Your task to perform on an android device: Go to settings Image 0: 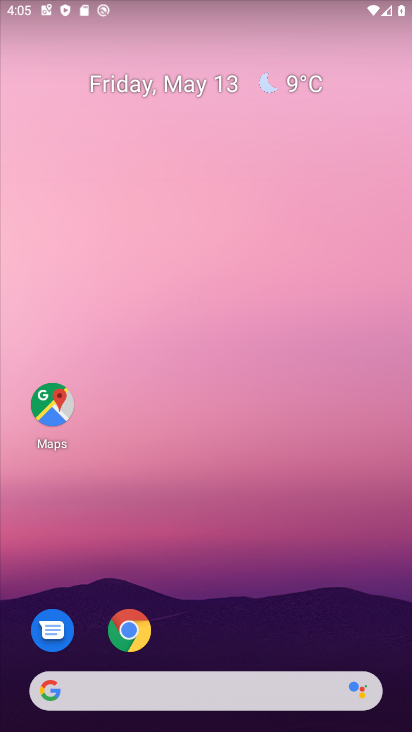
Step 0: drag from (281, 553) to (259, 3)
Your task to perform on an android device: Go to settings Image 1: 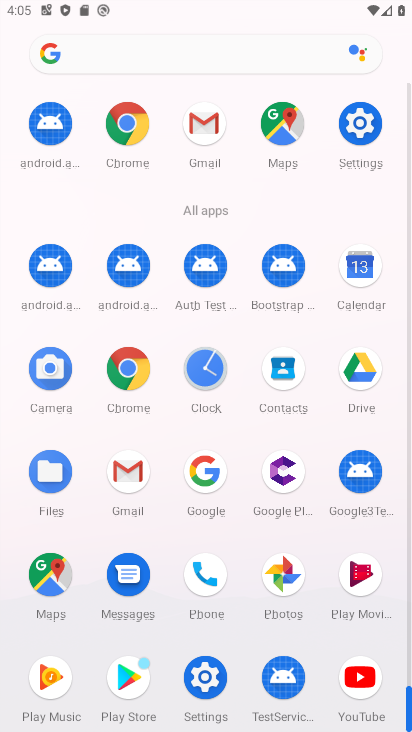
Step 1: drag from (1, 602) to (23, 373)
Your task to perform on an android device: Go to settings Image 2: 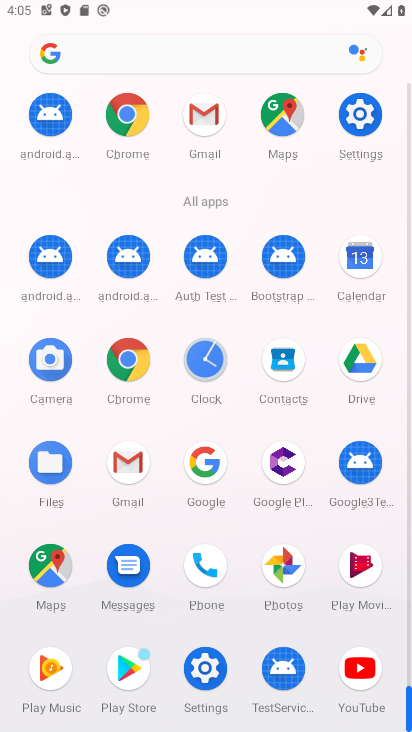
Step 2: click (205, 666)
Your task to perform on an android device: Go to settings Image 3: 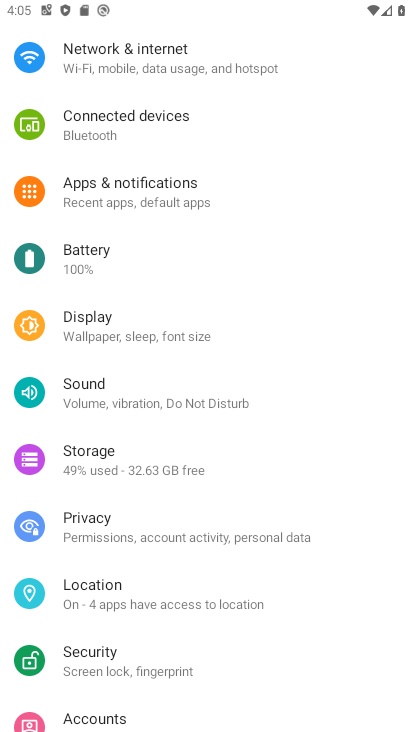
Step 3: task complete